Your task to perform on an android device: Go to calendar. Show me events next week Image 0: 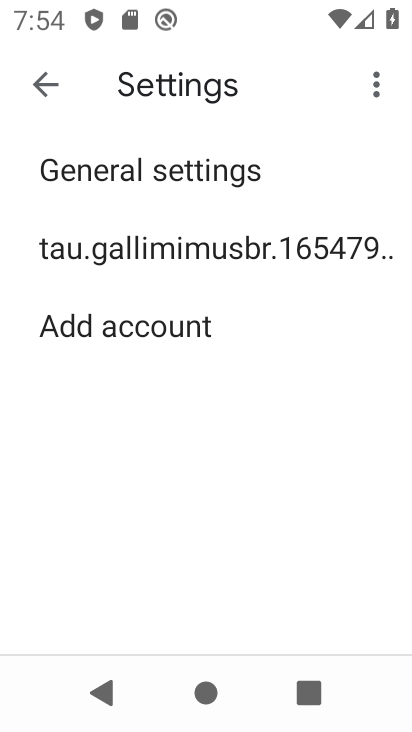
Step 0: press home button
Your task to perform on an android device: Go to calendar. Show me events next week Image 1: 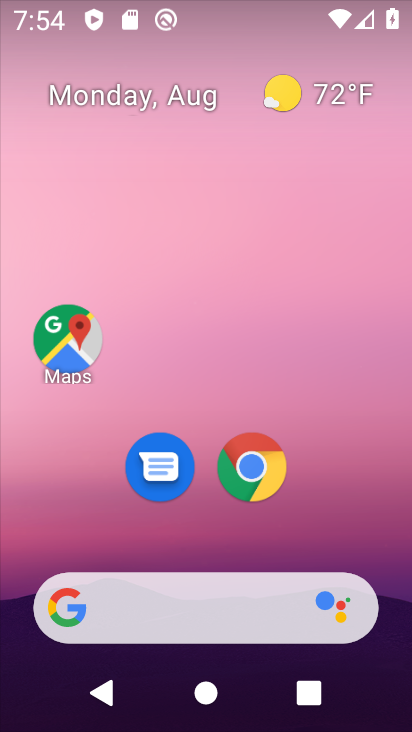
Step 1: drag from (370, 540) to (382, 152)
Your task to perform on an android device: Go to calendar. Show me events next week Image 2: 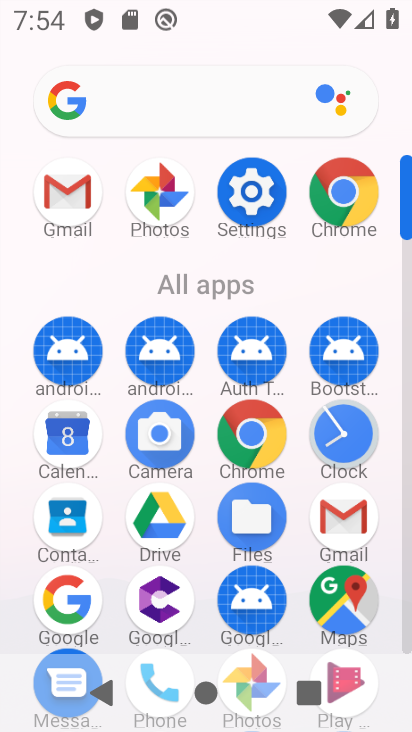
Step 2: click (68, 438)
Your task to perform on an android device: Go to calendar. Show me events next week Image 3: 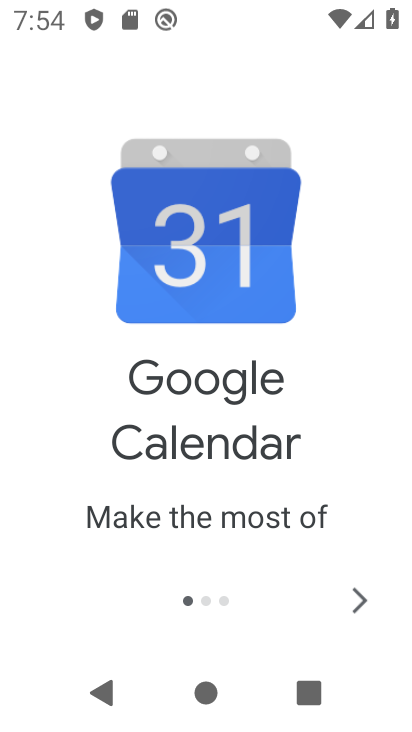
Step 3: click (357, 597)
Your task to perform on an android device: Go to calendar. Show me events next week Image 4: 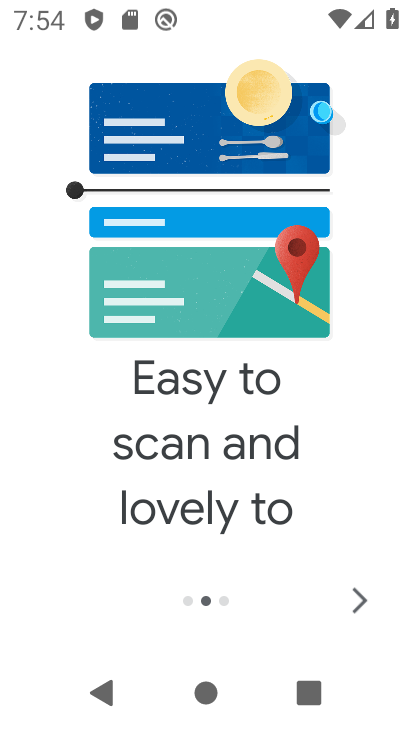
Step 4: click (351, 600)
Your task to perform on an android device: Go to calendar. Show me events next week Image 5: 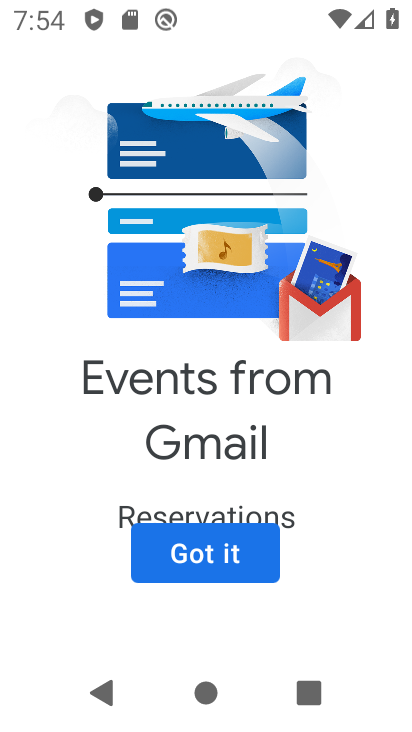
Step 5: click (228, 555)
Your task to perform on an android device: Go to calendar. Show me events next week Image 6: 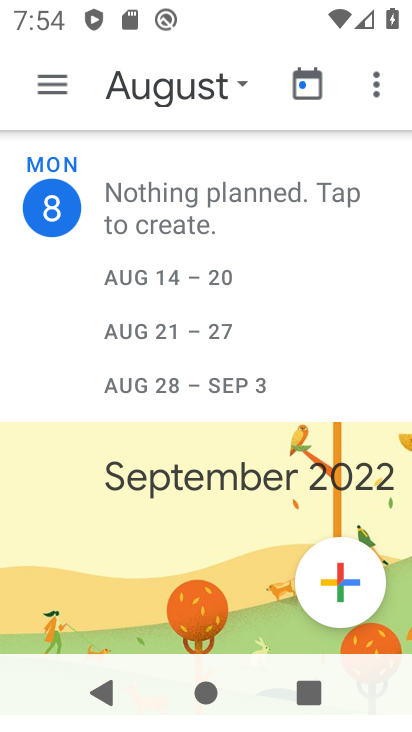
Step 6: click (242, 80)
Your task to perform on an android device: Go to calendar. Show me events next week Image 7: 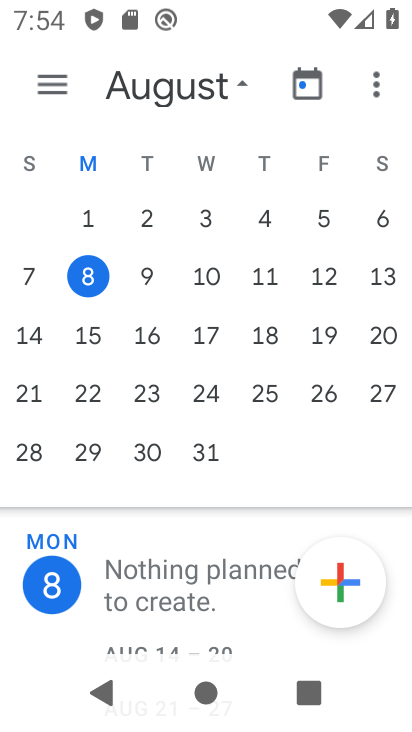
Step 7: click (86, 340)
Your task to perform on an android device: Go to calendar. Show me events next week Image 8: 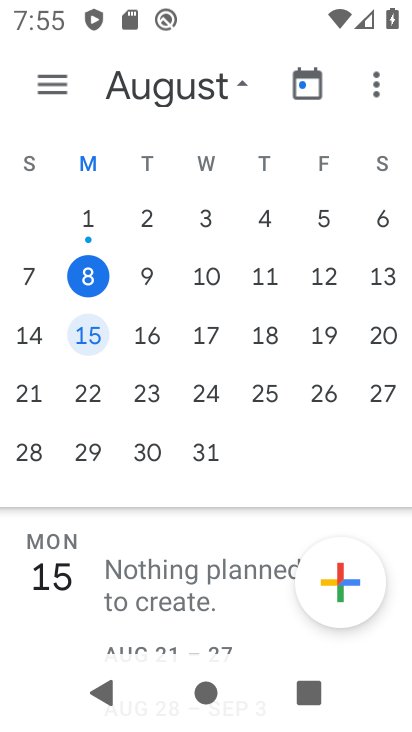
Step 8: task complete